Your task to perform on an android device: Open CNN.com Image 0: 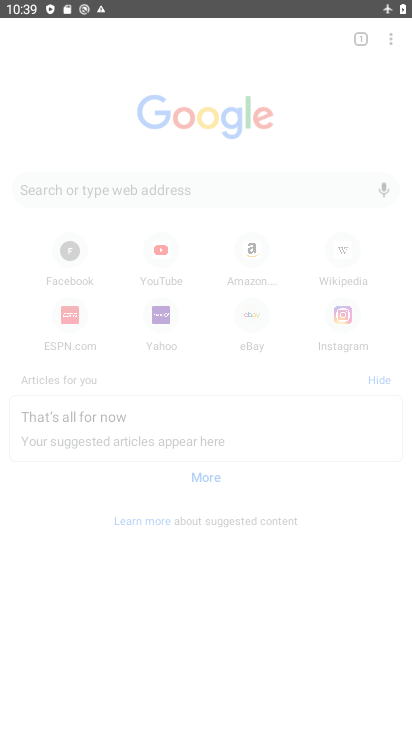
Step 0: press home button
Your task to perform on an android device: Open CNN.com Image 1: 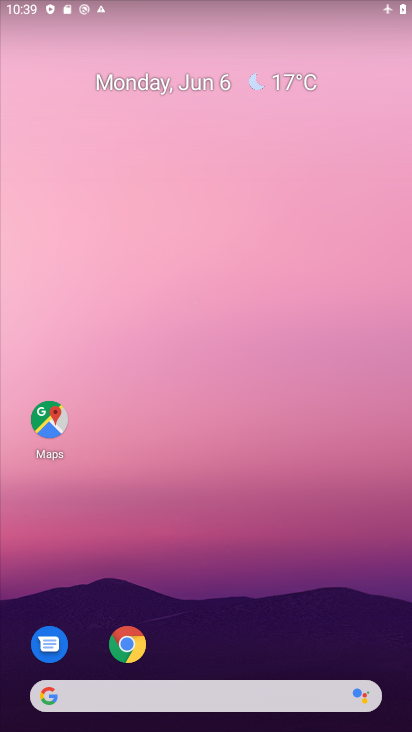
Step 1: click (133, 637)
Your task to perform on an android device: Open CNN.com Image 2: 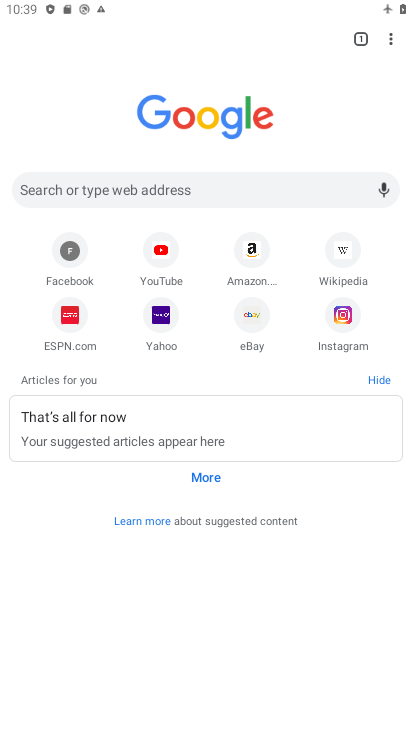
Step 2: drag from (376, 1) to (300, 458)
Your task to perform on an android device: Open CNN.com Image 3: 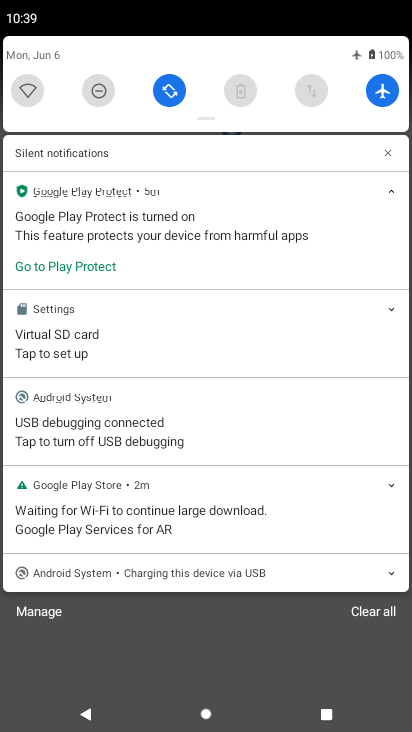
Step 3: click (378, 106)
Your task to perform on an android device: Open CNN.com Image 4: 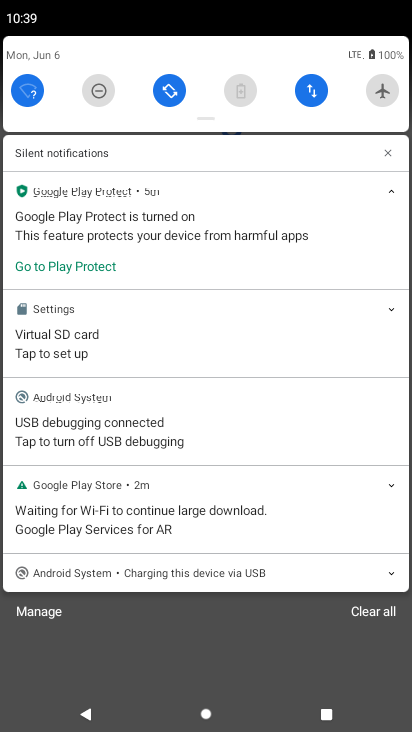
Step 4: drag from (175, 637) to (216, 209)
Your task to perform on an android device: Open CNN.com Image 5: 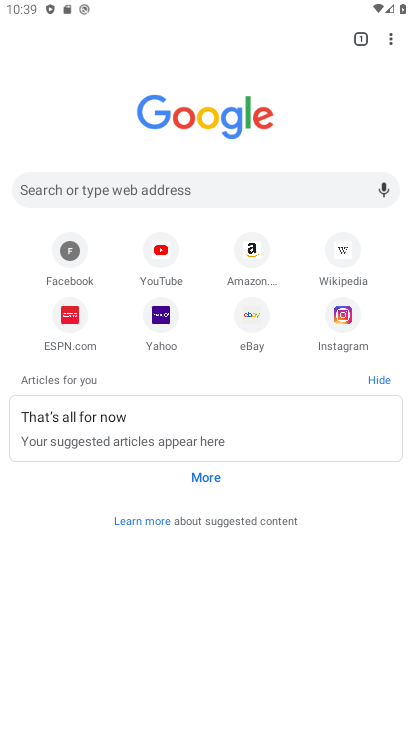
Step 5: click (127, 185)
Your task to perform on an android device: Open CNN.com Image 6: 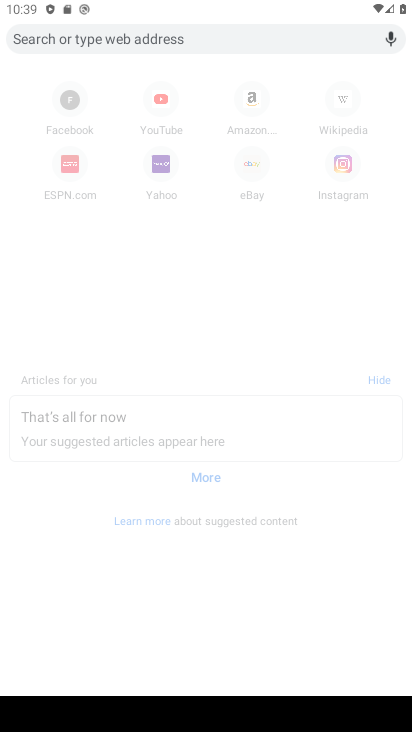
Step 6: type "CNN.com"
Your task to perform on an android device: Open CNN.com Image 7: 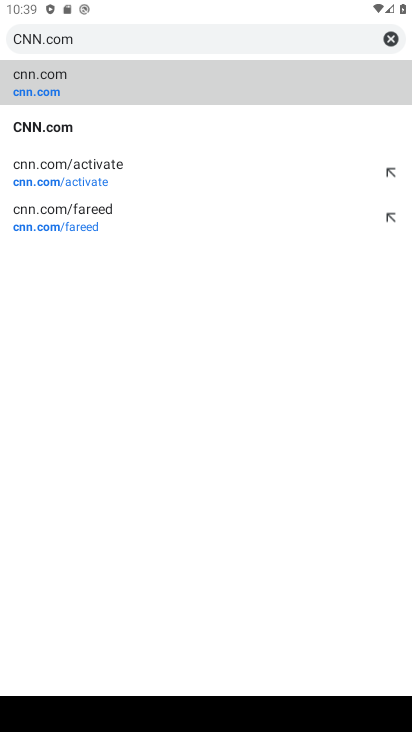
Step 7: click (243, 88)
Your task to perform on an android device: Open CNN.com Image 8: 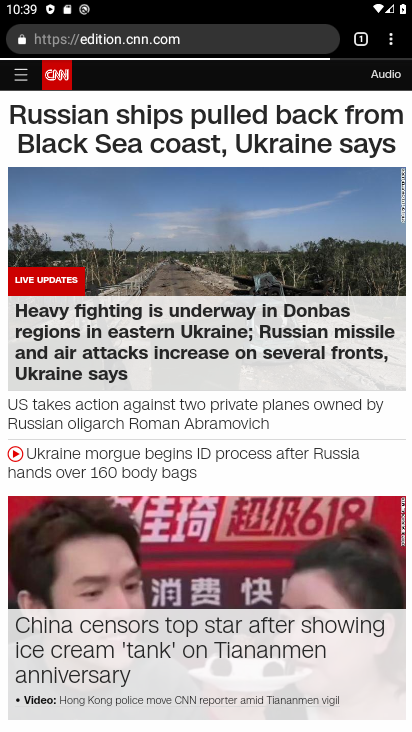
Step 8: task complete